Your task to perform on an android device: toggle priority inbox in the gmail app Image 0: 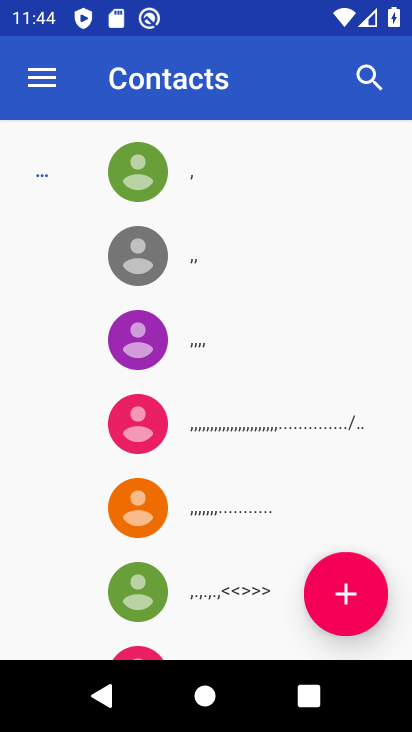
Step 0: press home button
Your task to perform on an android device: toggle priority inbox in the gmail app Image 1: 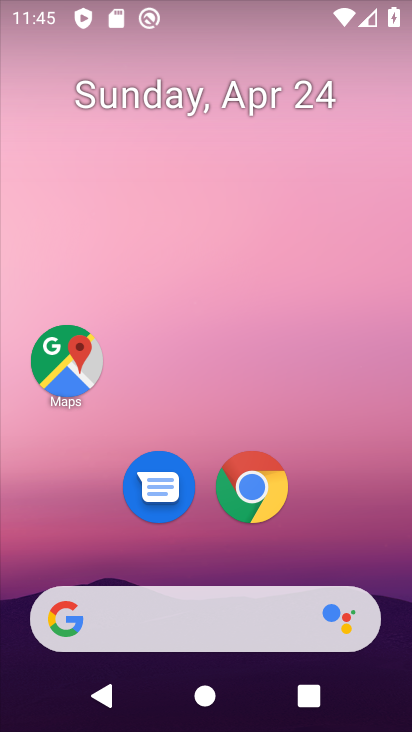
Step 1: drag from (204, 576) to (229, 119)
Your task to perform on an android device: toggle priority inbox in the gmail app Image 2: 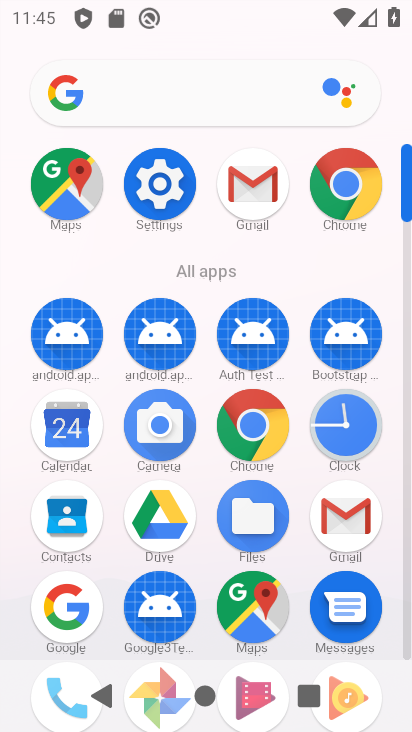
Step 2: click (256, 176)
Your task to perform on an android device: toggle priority inbox in the gmail app Image 3: 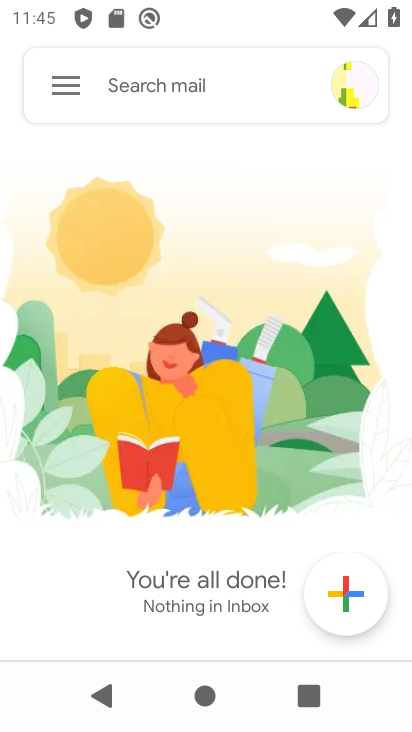
Step 3: click (70, 102)
Your task to perform on an android device: toggle priority inbox in the gmail app Image 4: 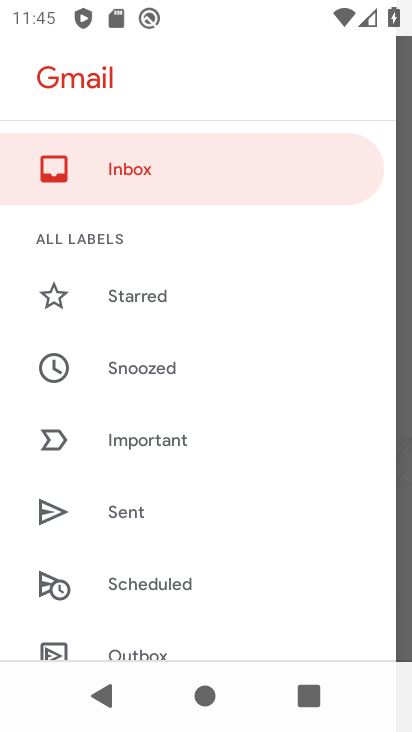
Step 4: drag from (202, 506) to (237, 2)
Your task to perform on an android device: toggle priority inbox in the gmail app Image 5: 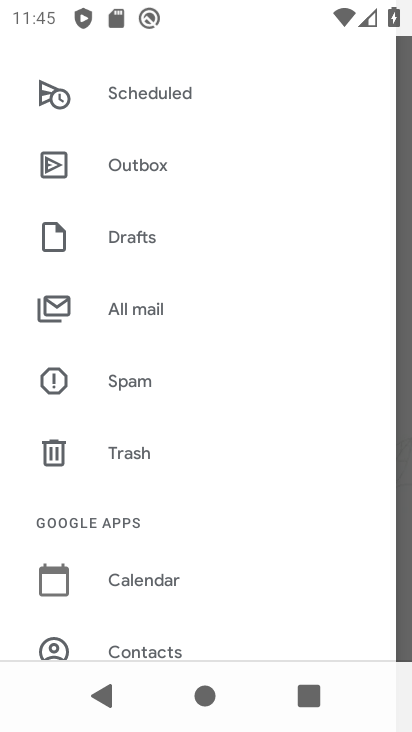
Step 5: drag from (201, 445) to (235, 255)
Your task to perform on an android device: toggle priority inbox in the gmail app Image 6: 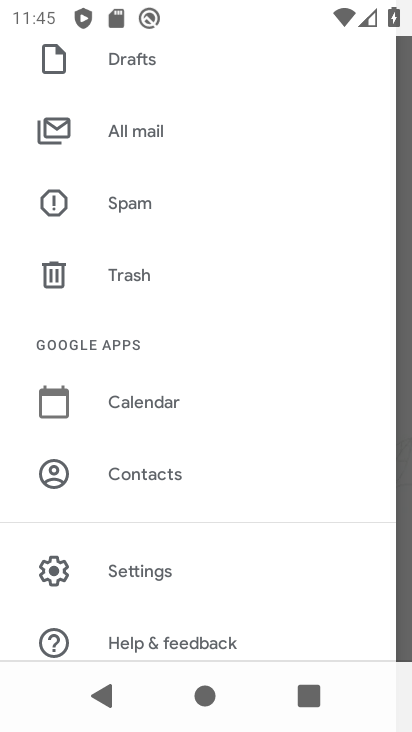
Step 6: click (159, 560)
Your task to perform on an android device: toggle priority inbox in the gmail app Image 7: 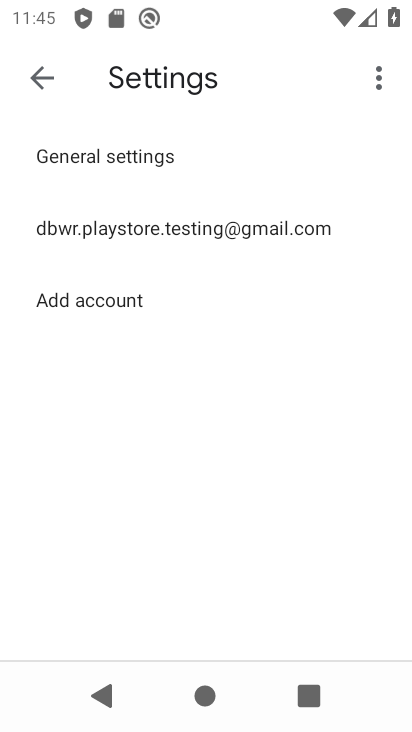
Step 7: click (155, 233)
Your task to perform on an android device: toggle priority inbox in the gmail app Image 8: 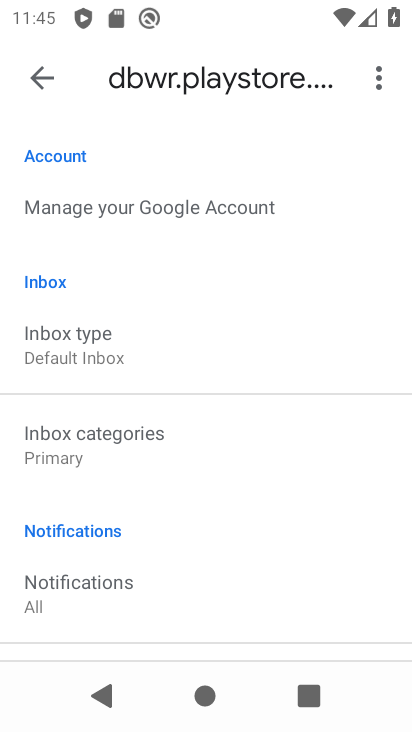
Step 8: click (105, 332)
Your task to perform on an android device: toggle priority inbox in the gmail app Image 9: 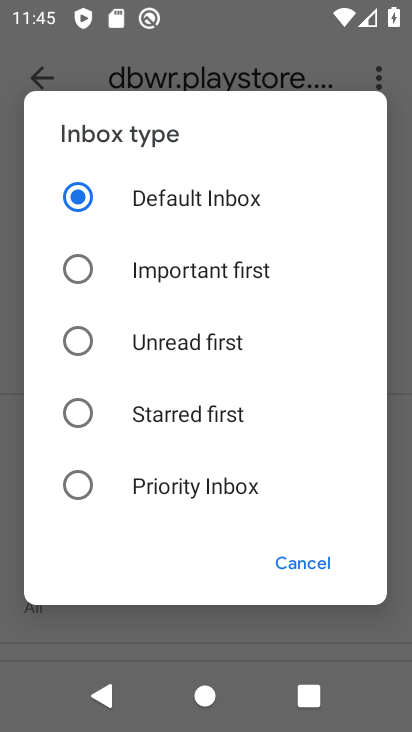
Step 9: click (81, 478)
Your task to perform on an android device: toggle priority inbox in the gmail app Image 10: 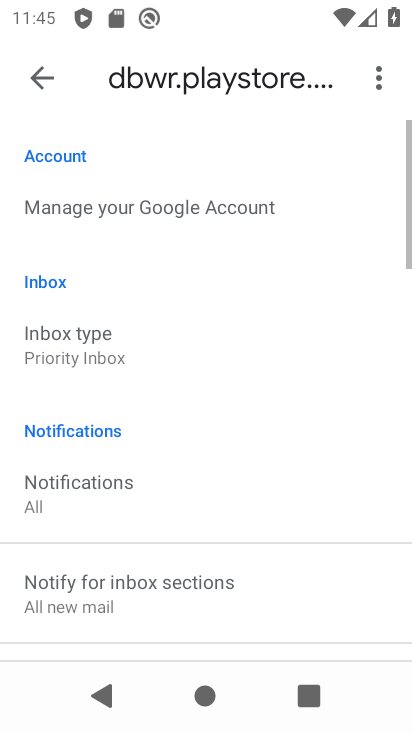
Step 10: task complete